Your task to perform on an android device: What's on my calendar today? Image 0: 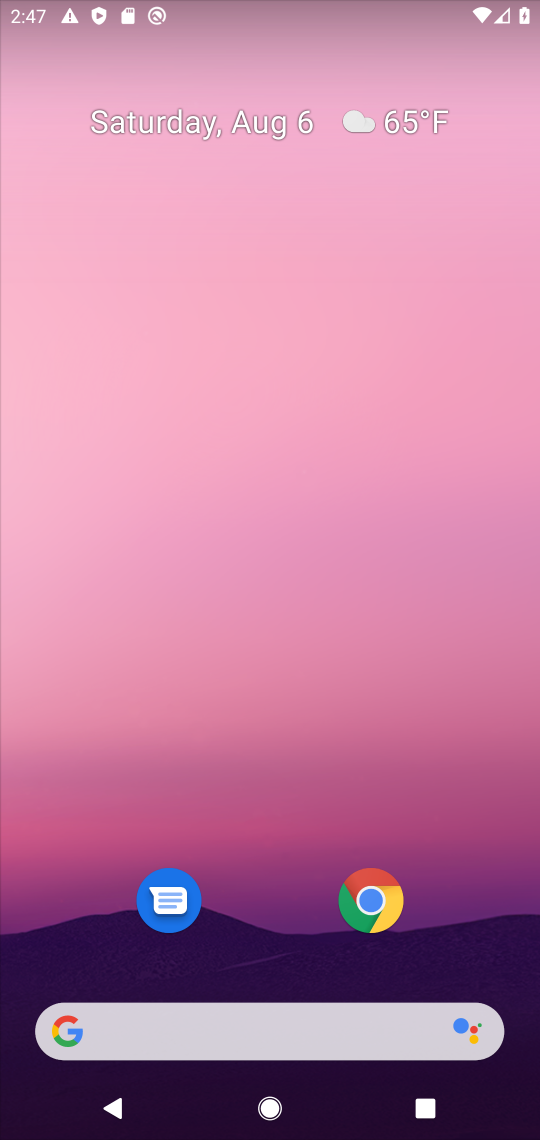
Step 0: press home button
Your task to perform on an android device: What's on my calendar today? Image 1: 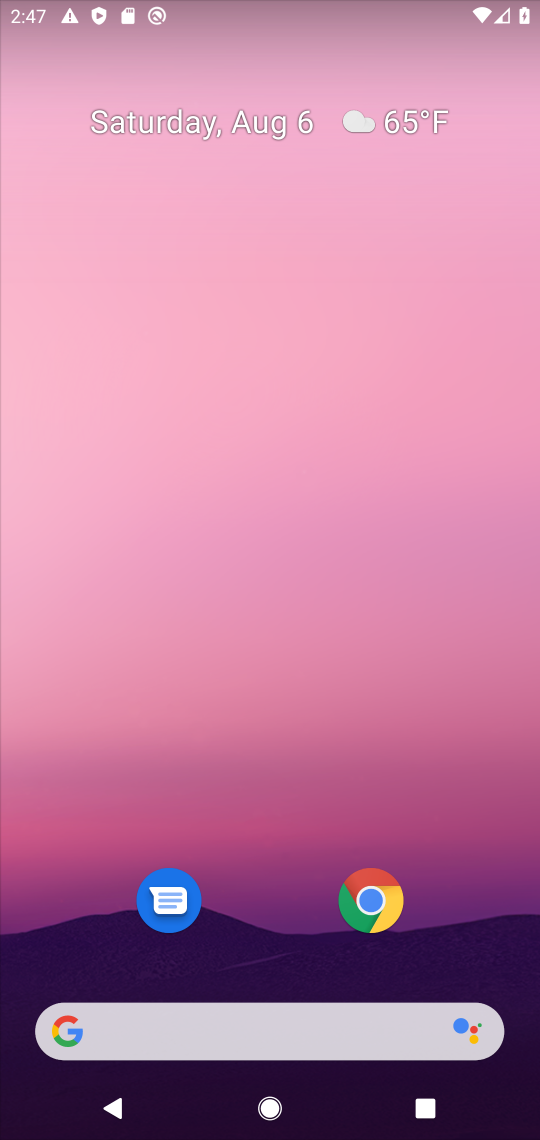
Step 1: drag from (292, 819) to (340, 214)
Your task to perform on an android device: What's on my calendar today? Image 2: 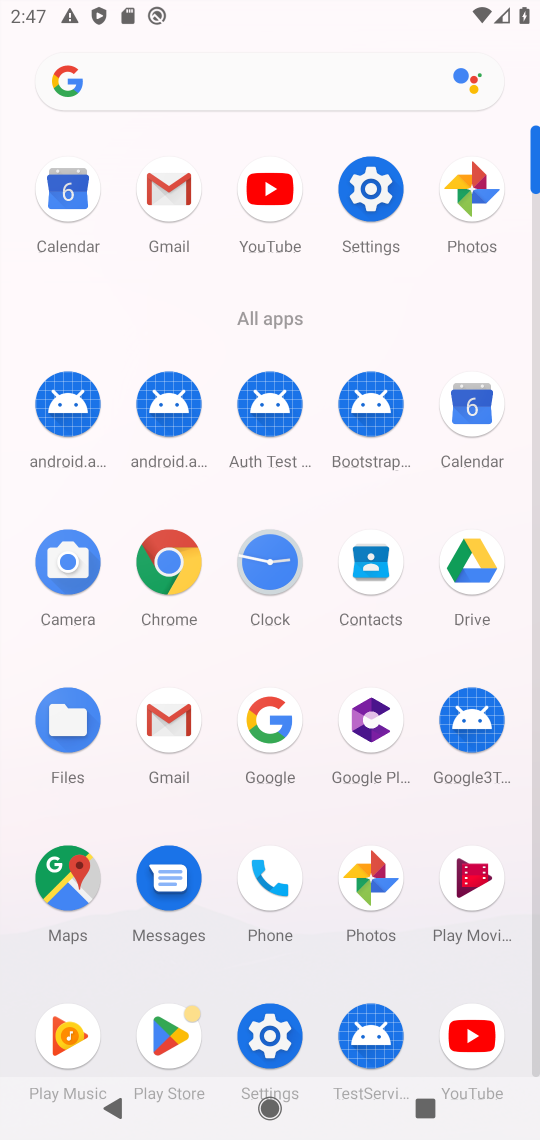
Step 2: click (470, 412)
Your task to perform on an android device: What's on my calendar today? Image 3: 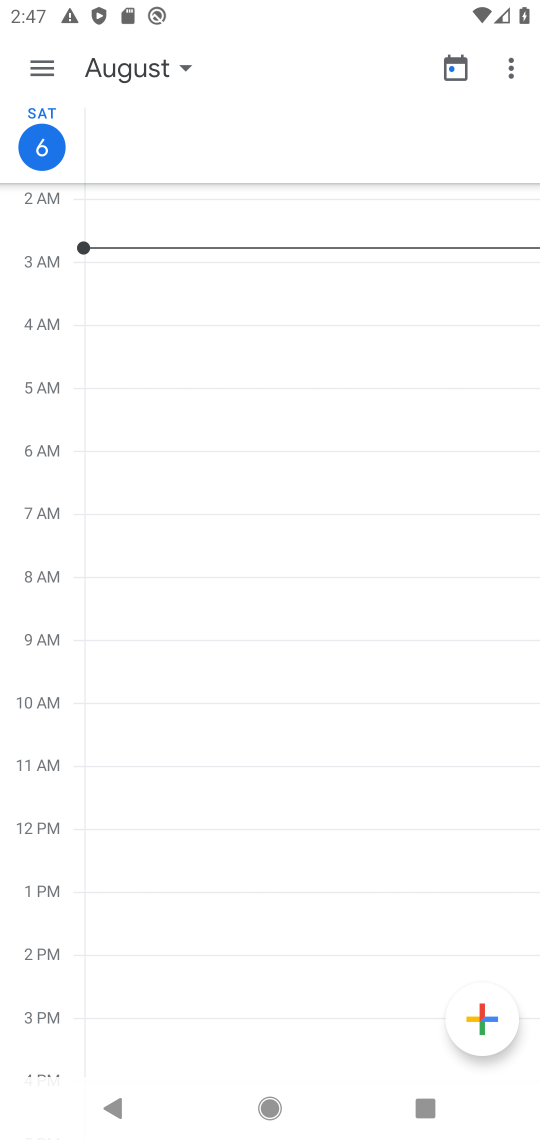
Step 3: task complete